Your task to perform on an android device: Open CNN.com Image 0: 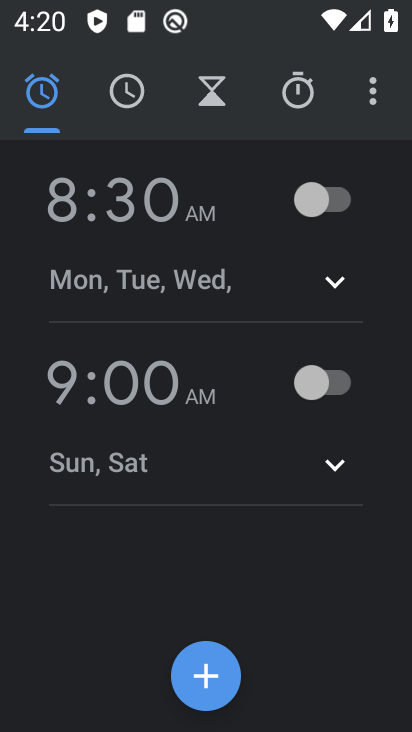
Step 0: press home button
Your task to perform on an android device: Open CNN.com Image 1: 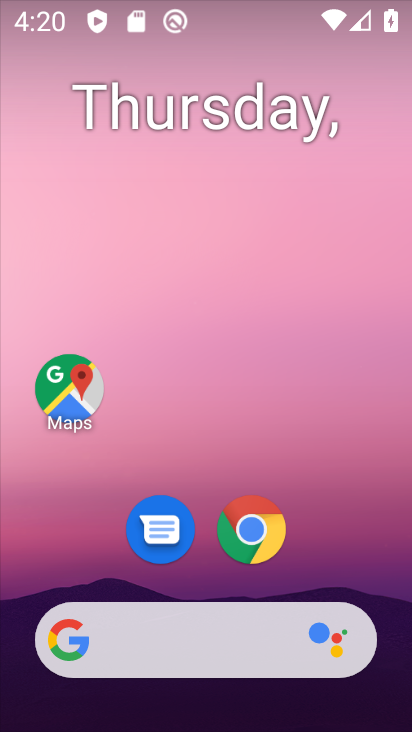
Step 1: click (250, 532)
Your task to perform on an android device: Open CNN.com Image 2: 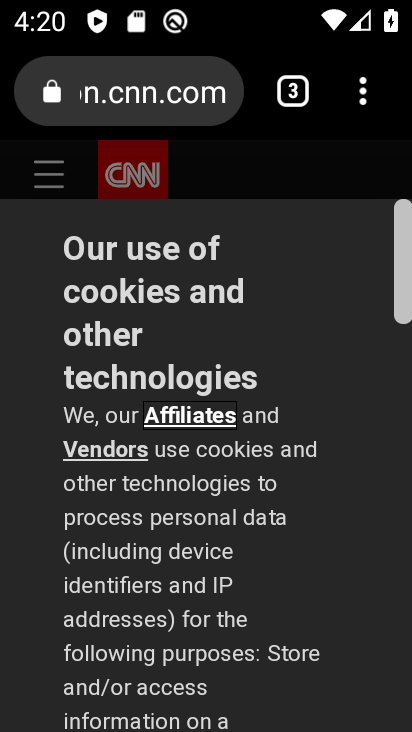
Step 2: task complete